Your task to perform on an android device: turn pop-ups off in chrome Image 0: 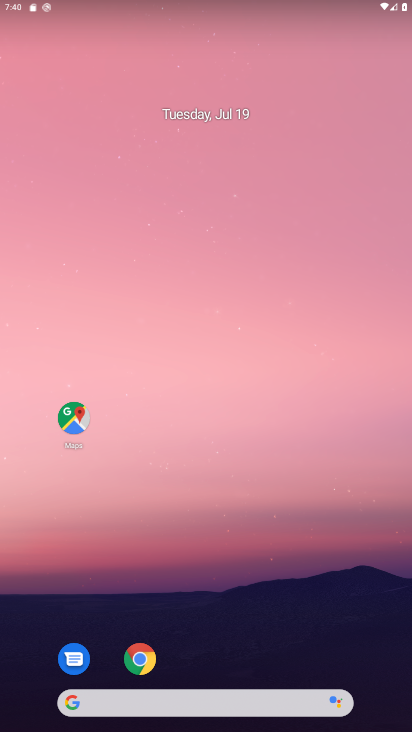
Step 0: click (137, 659)
Your task to perform on an android device: turn pop-ups off in chrome Image 1: 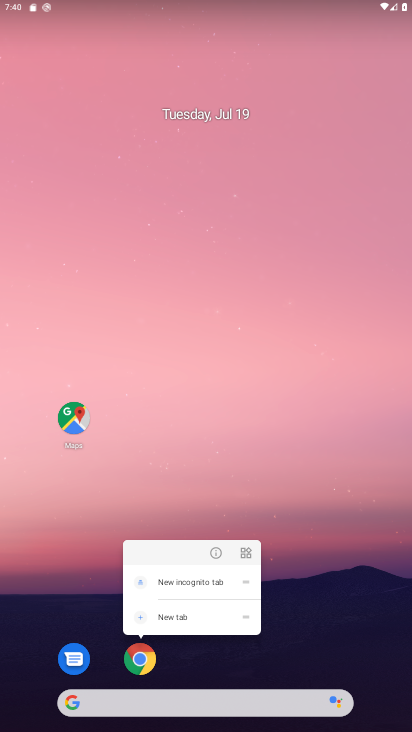
Step 1: click (138, 657)
Your task to perform on an android device: turn pop-ups off in chrome Image 2: 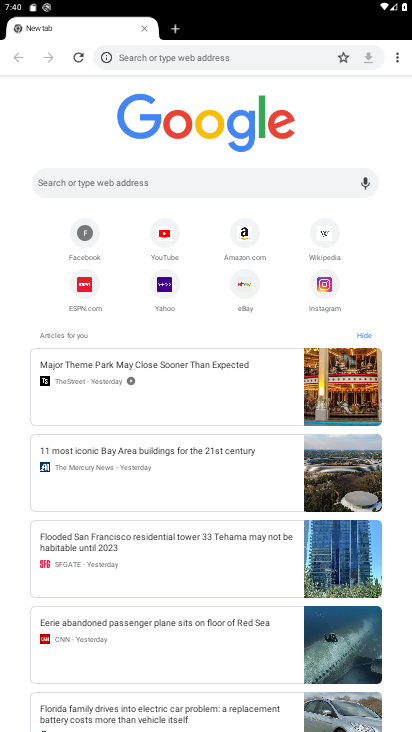
Step 2: click (398, 58)
Your task to perform on an android device: turn pop-ups off in chrome Image 3: 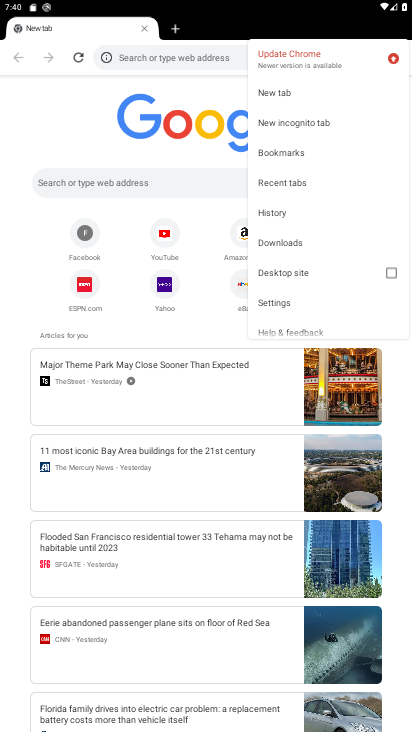
Step 3: click (274, 297)
Your task to perform on an android device: turn pop-ups off in chrome Image 4: 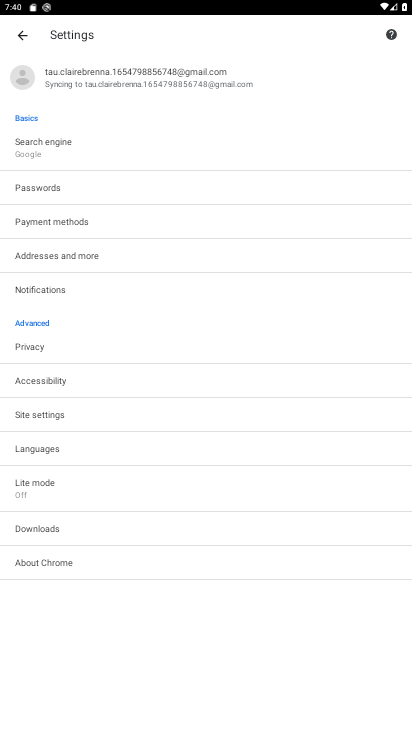
Step 4: click (37, 415)
Your task to perform on an android device: turn pop-ups off in chrome Image 5: 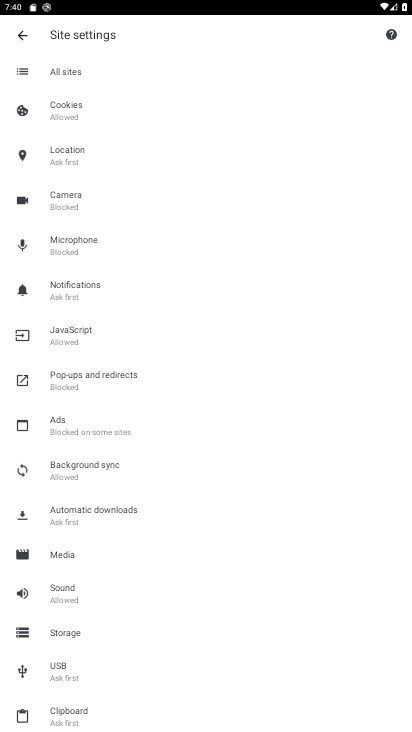
Step 5: click (79, 378)
Your task to perform on an android device: turn pop-ups off in chrome Image 6: 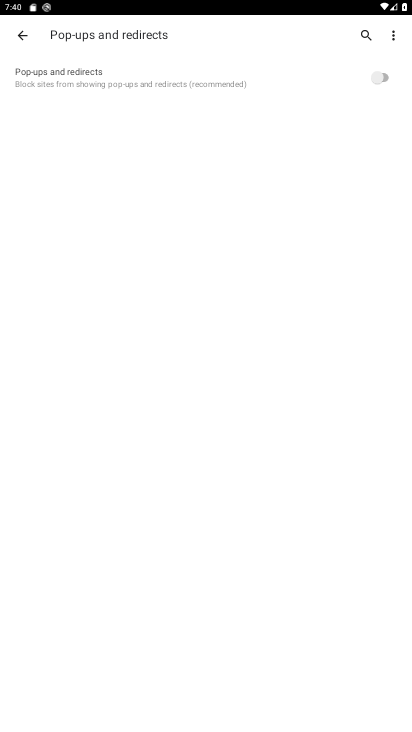
Step 6: task complete